Your task to perform on an android device: Open Google Chrome and open the bookmarks view Image 0: 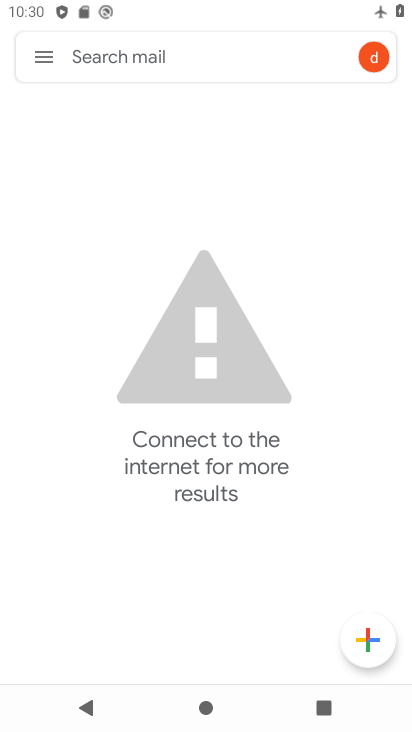
Step 0: press home button
Your task to perform on an android device: Open Google Chrome and open the bookmarks view Image 1: 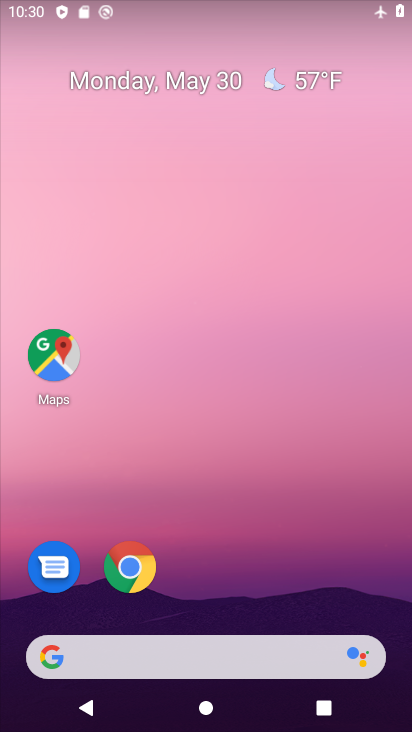
Step 1: click (143, 578)
Your task to perform on an android device: Open Google Chrome and open the bookmarks view Image 2: 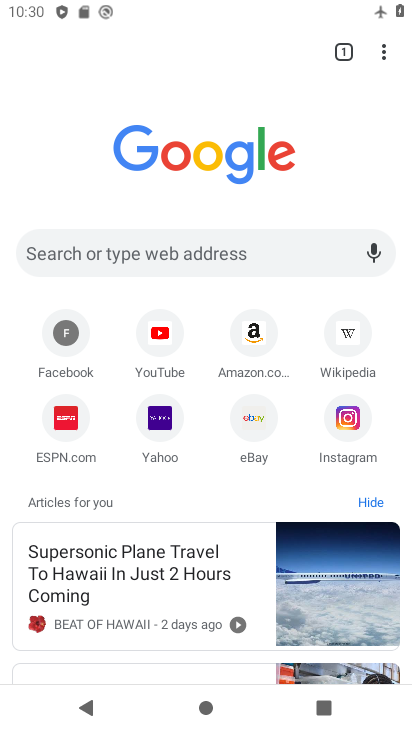
Step 2: click (386, 47)
Your task to perform on an android device: Open Google Chrome and open the bookmarks view Image 3: 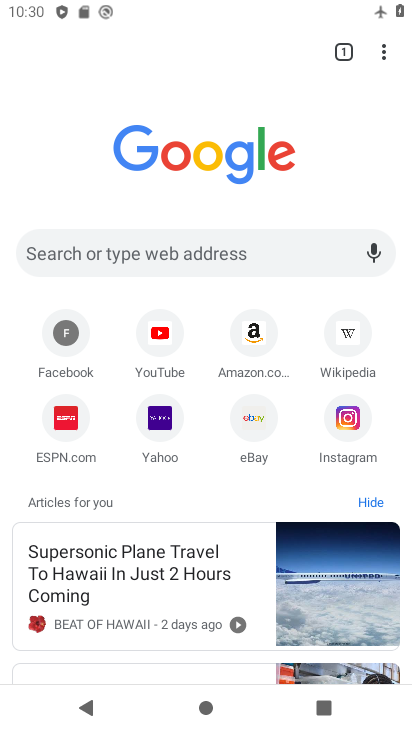
Step 3: task complete